Your task to perform on an android device: What's the weather today? Image 0: 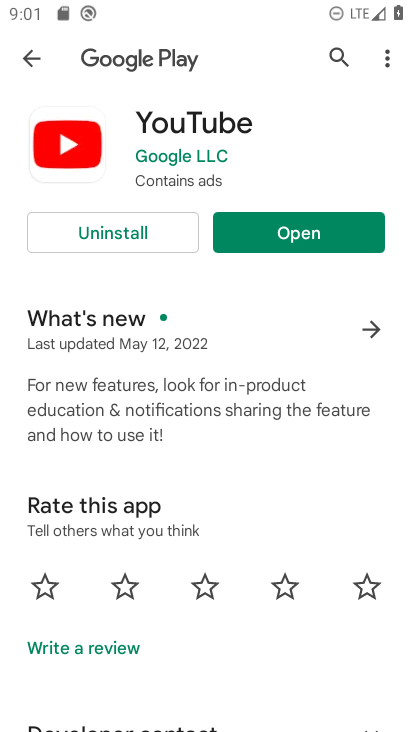
Step 0: press home button
Your task to perform on an android device: What's the weather today? Image 1: 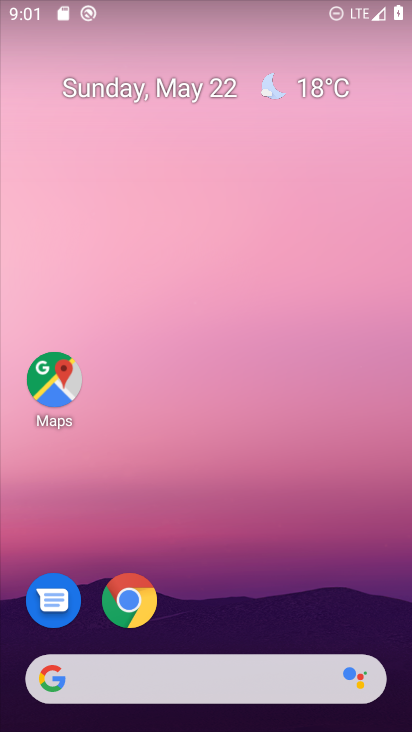
Step 1: drag from (392, 643) to (298, 179)
Your task to perform on an android device: What's the weather today? Image 2: 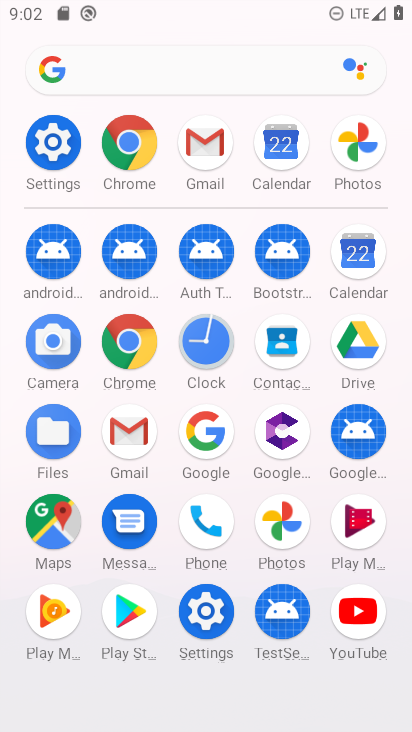
Step 2: click (201, 426)
Your task to perform on an android device: What's the weather today? Image 3: 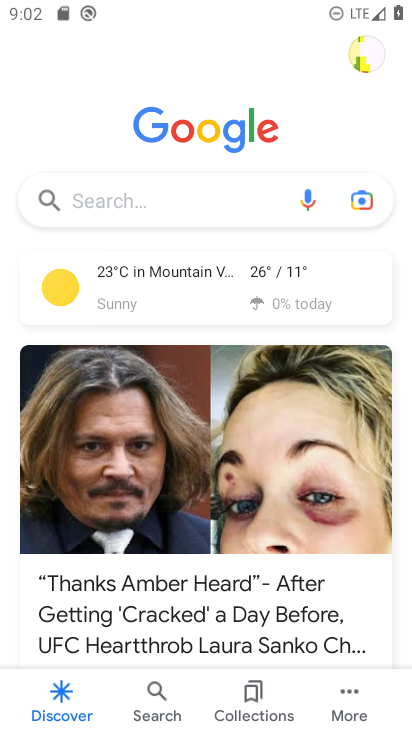
Step 3: click (171, 206)
Your task to perform on an android device: What's the weather today? Image 4: 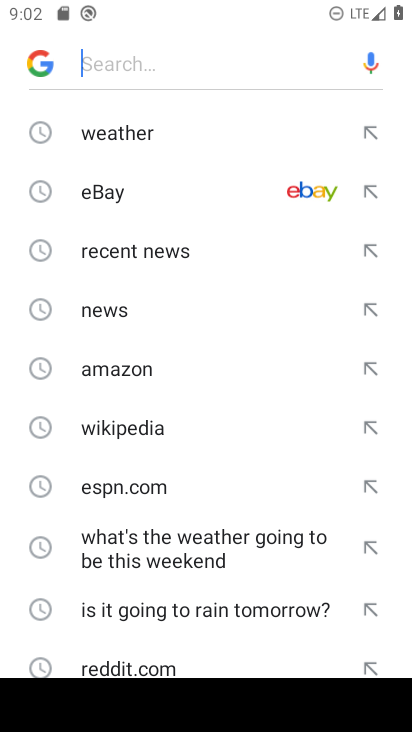
Step 4: drag from (169, 580) to (199, 157)
Your task to perform on an android device: What's the weather today? Image 5: 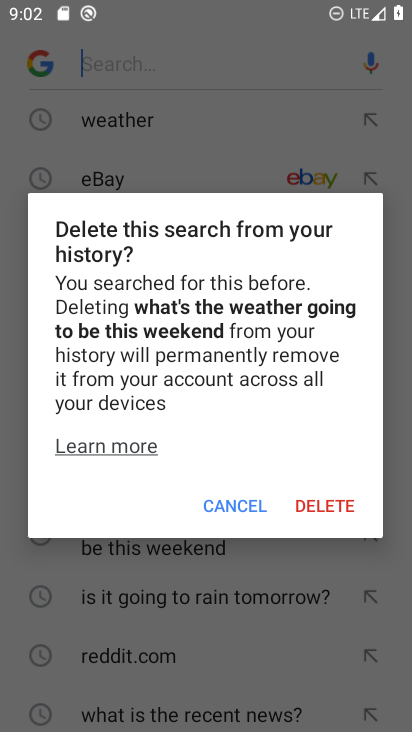
Step 5: click (228, 507)
Your task to perform on an android device: What's the weather today? Image 6: 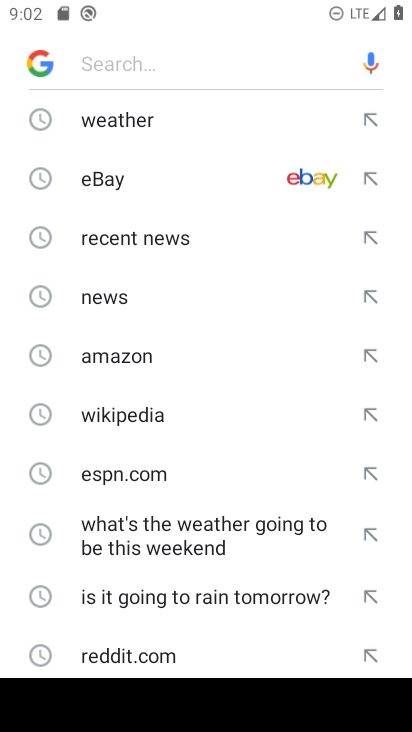
Step 6: drag from (230, 676) to (163, 167)
Your task to perform on an android device: What's the weather today? Image 7: 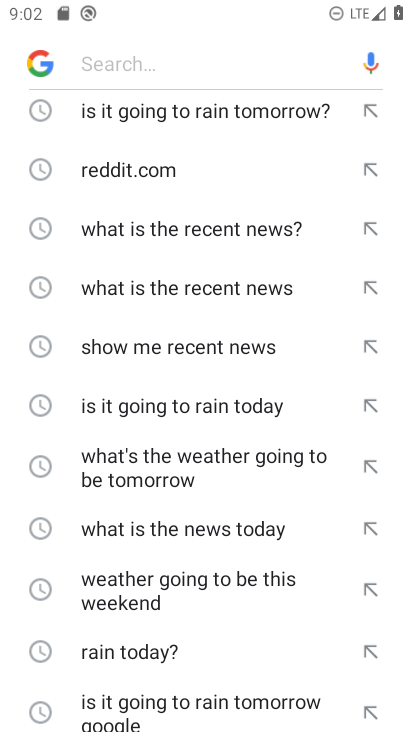
Step 7: drag from (218, 612) to (220, 307)
Your task to perform on an android device: What's the weather today? Image 8: 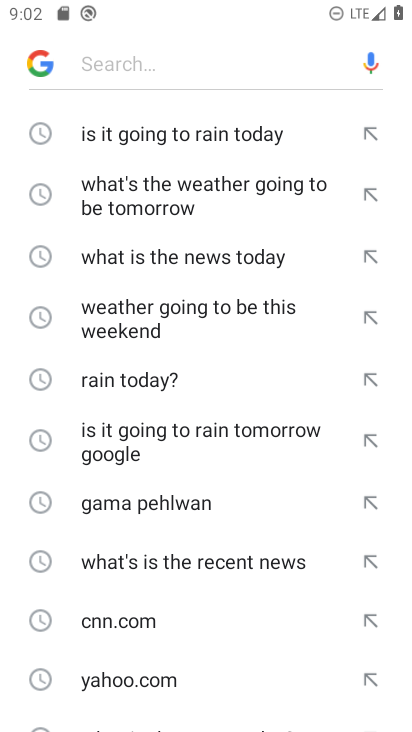
Step 8: drag from (240, 639) to (217, 313)
Your task to perform on an android device: What's the weather today? Image 9: 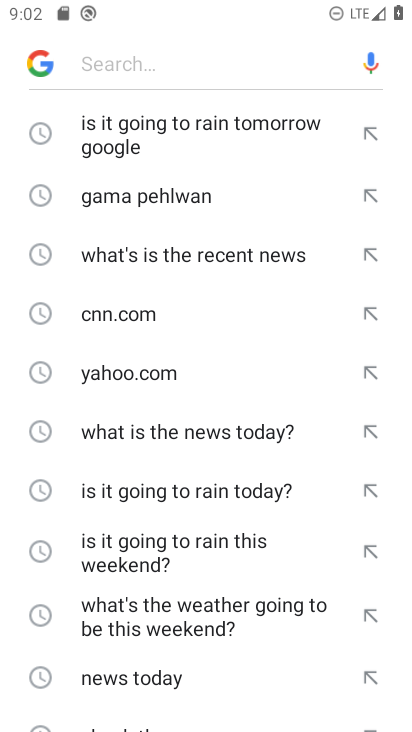
Step 9: drag from (201, 676) to (194, 244)
Your task to perform on an android device: What's the weather today? Image 10: 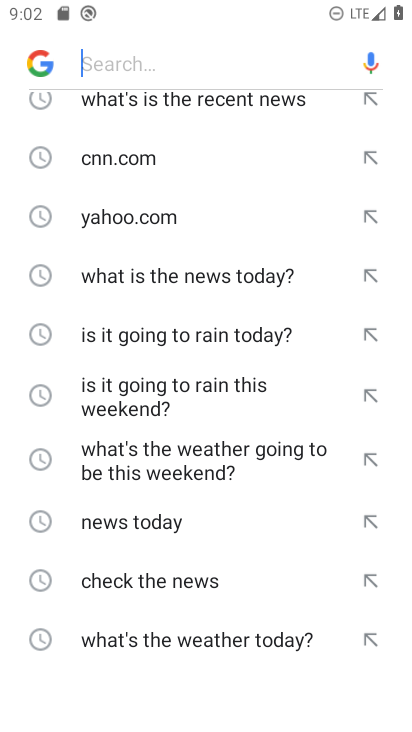
Step 10: click (233, 644)
Your task to perform on an android device: What's the weather today? Image 11: 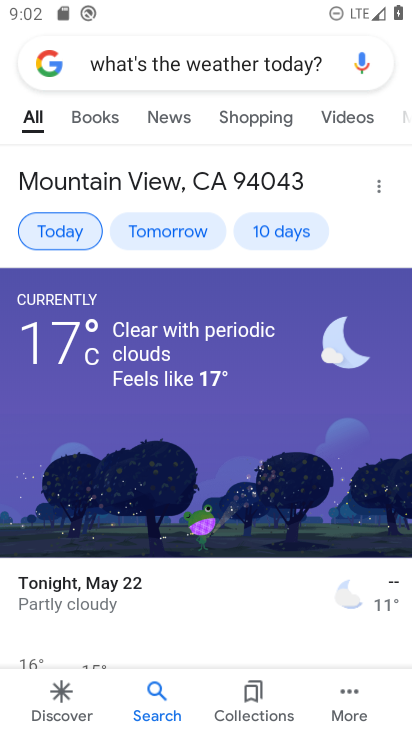
Step 11: task complete